Your task to perform on an android device: check battery use Image 0: 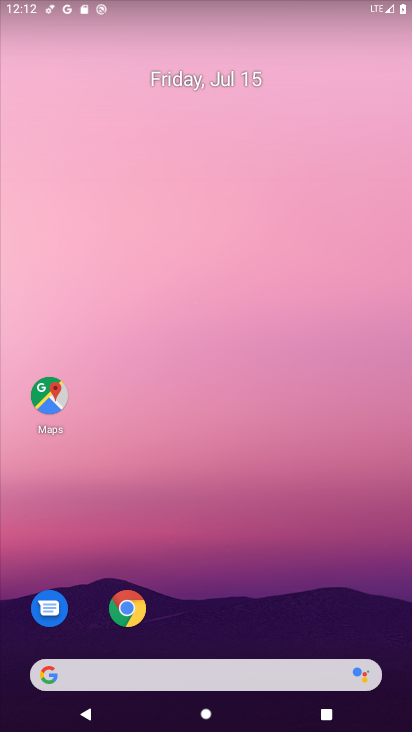
Step 0: press home button
Your task to perform on an android device: check battery use Image 1: 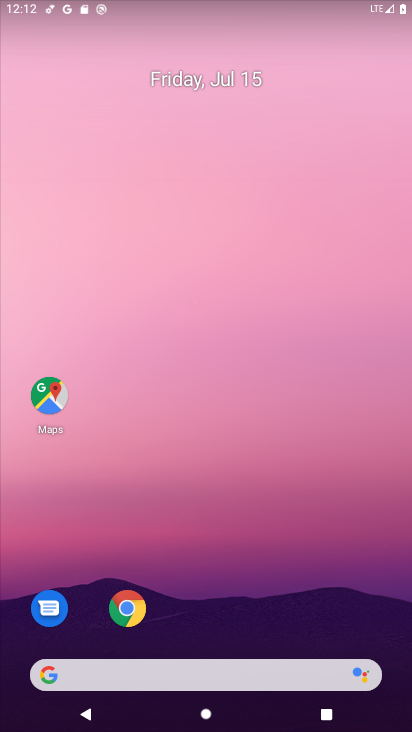
Step 1: drag from (224, 554) to (102, 93)
Your task to perform on an android device: check battery use Image 2: 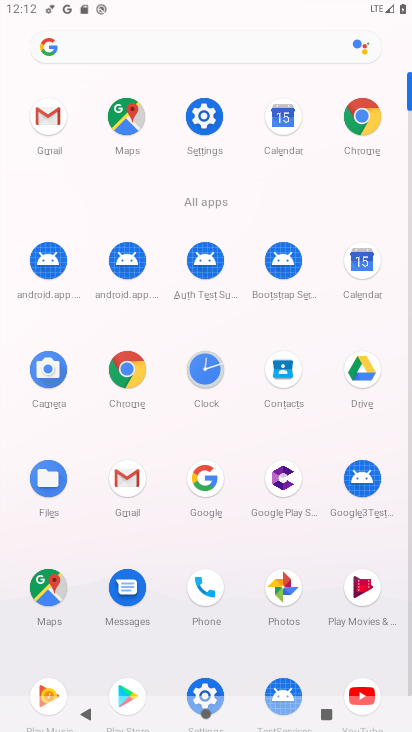
Step 2: click (206, 116)
Your task to perform on an android device: check battery use Image 3: 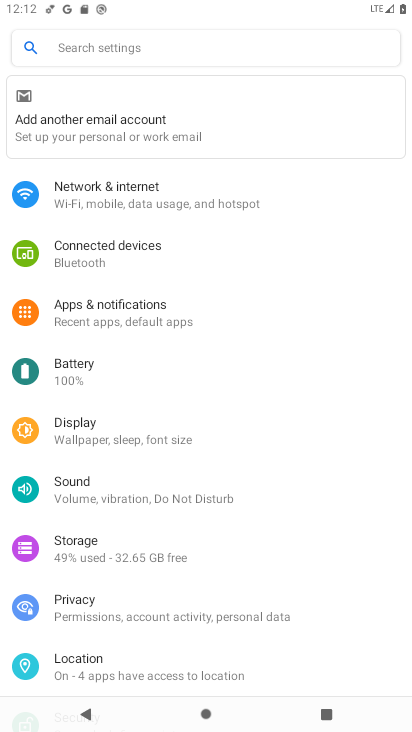
Step 3: click (65, 367)
Your task to perform on an android device: check battery use Image 4: 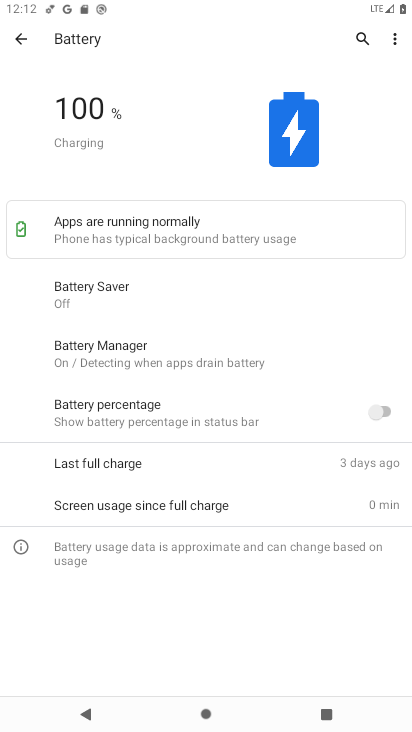
Step 4: task complete